Your task to perform on an android device: find snoozed emails in the gmail app Image 0: 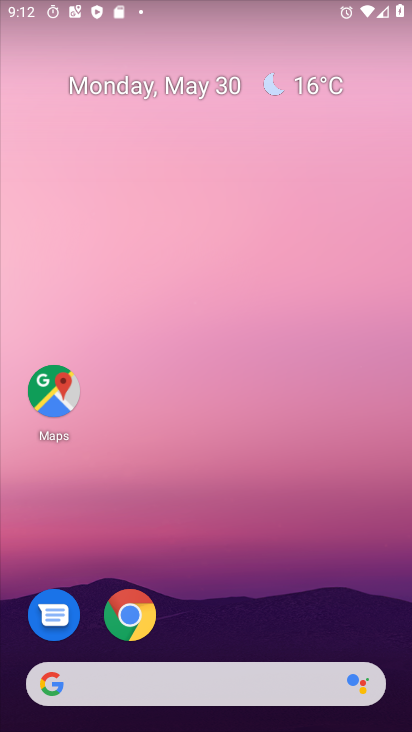
Step 0: drag from (255, 587) to (253, 116)
Your task to perform on an android device: find snoozed emails in the gmail app Image 1: 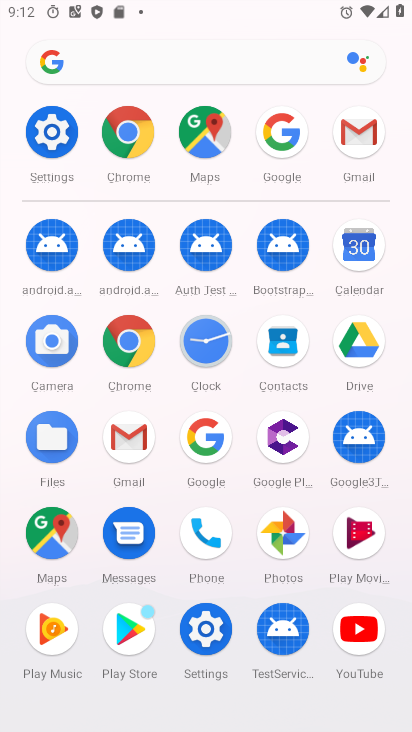
Step 1: click (368, 130)
Your task to perform on an android device: find snoozed emails in the gmail app Image 2: 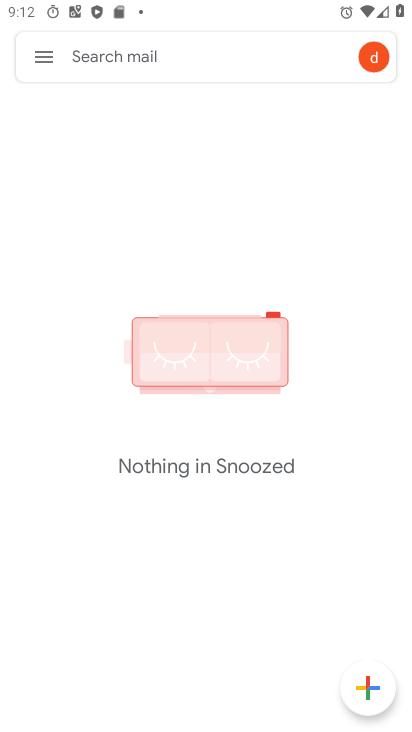
Step 2: click (34, 63)
Your task to perform on an android device: find snoozed emails in the gmail app Image 3: 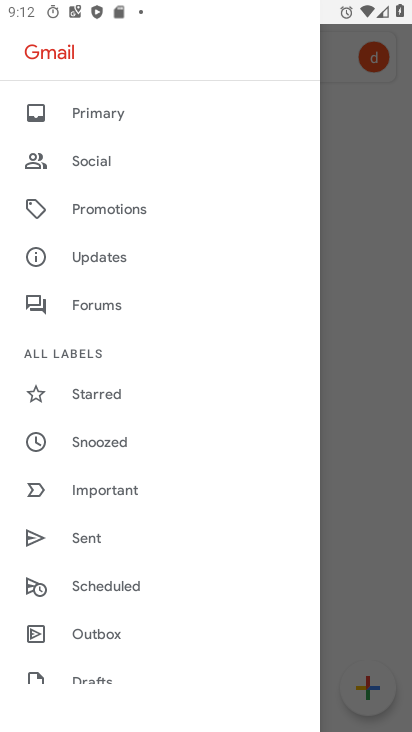
Step 3: click (114, 435)
Your task to perform on an android device: find snoozed emails in the gmail app Image 4: 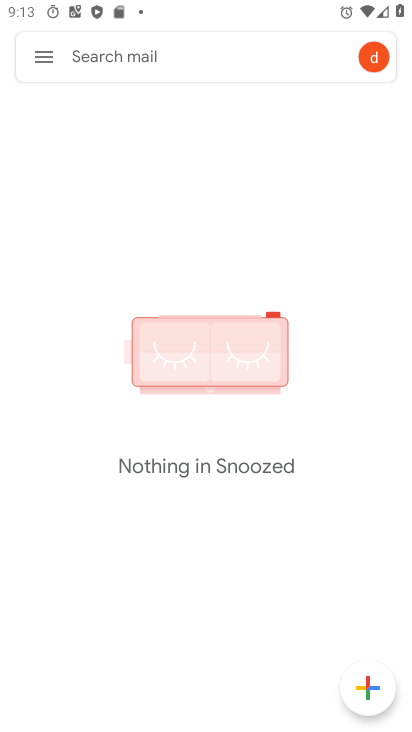
Step 4: task complete